Your task to perform on an android device: open app "Yahoo Mail" (install if not already installed) Image 0: 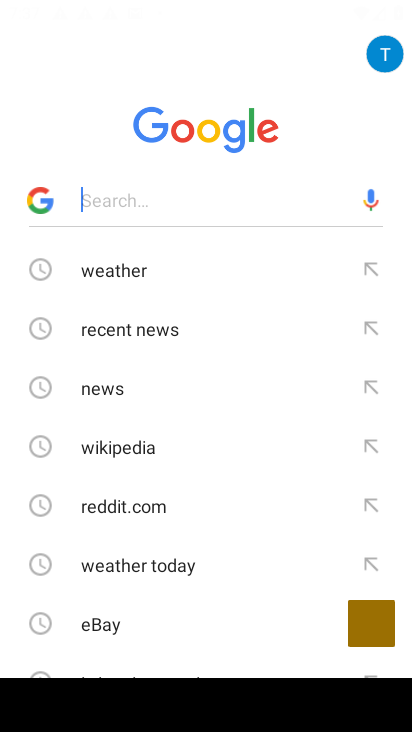
Step 0: drag from (170, 433) to (193, 196)
Your task to perform on an android device: open app "Yahoo Mail" (install if not already installed) Image 1: 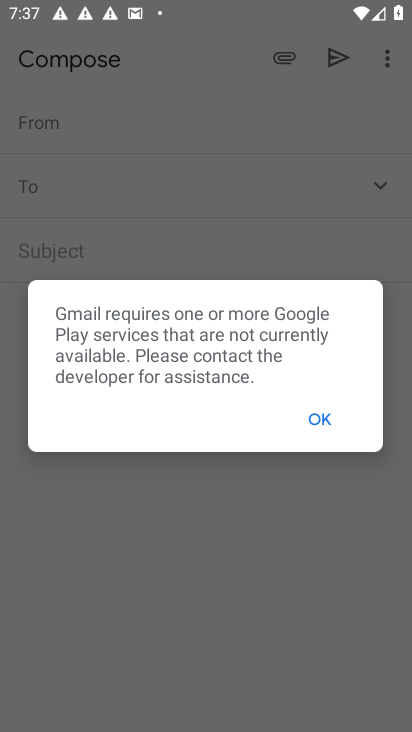
Step 1: press home button
Your task to perform on an android device: open app "Yahoo Mail" (install if not already installed) Image 2: 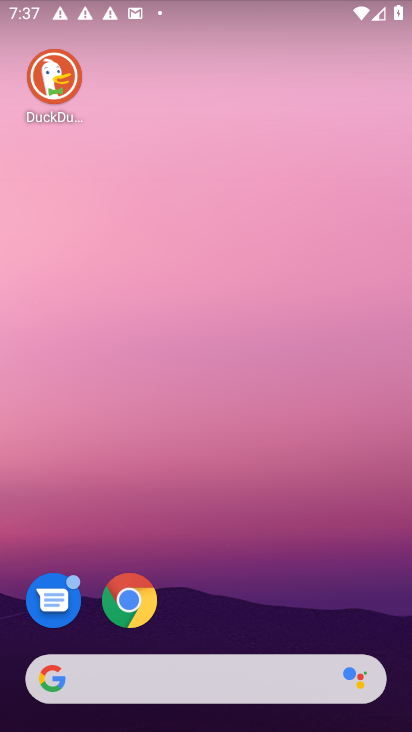
Step 2: drag from (177, 514) to (216, 17)
Your task to perform on an android device: open app "Yahoo Mail" (install if not already installed) Image 3: 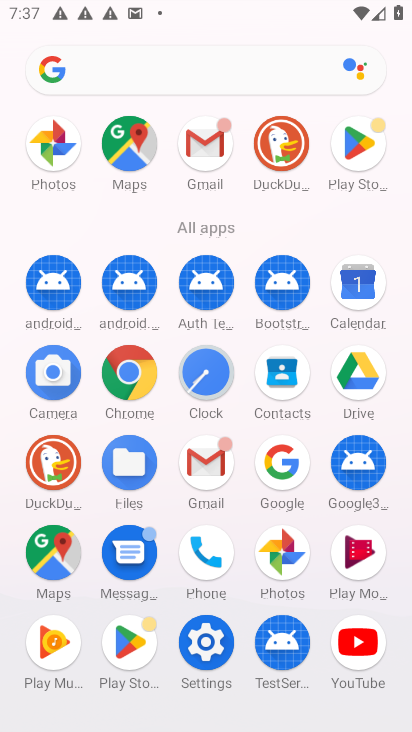
Step 3: click (362, 161)
Your task to perform on an android device: open app "Yahoo Mail" (install if not already installed) Image 4: 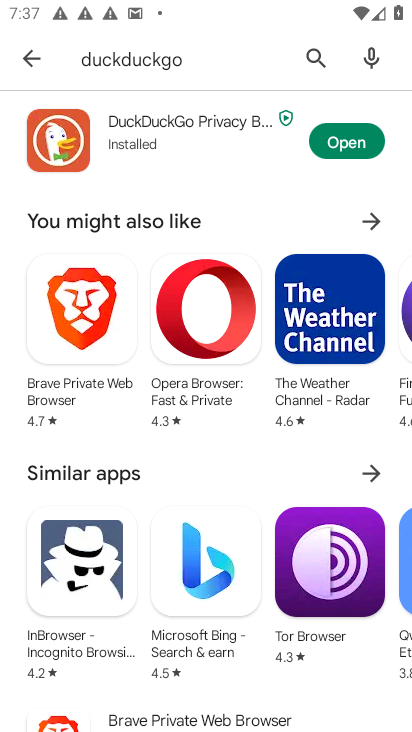
Step 4: click (176, 60)
Your task to perform on an android device: open app "Yahoo Mail" (install if not already installed) Image 5: 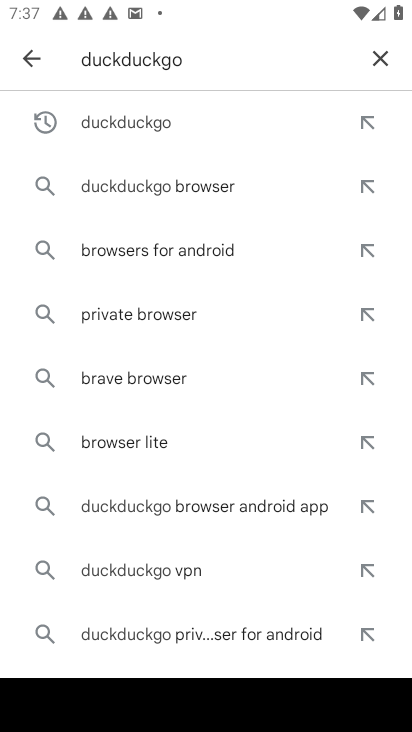
Step 5: click (378, 56)
Your task to perform on an android device: open app "Yahoo Mail" (install if not already installed) Image 6: 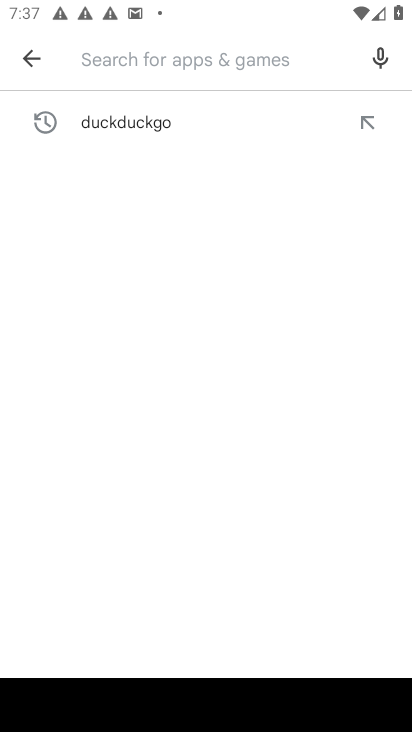
Step 6: type "yahoo mail"
Your task to perform on an android device: open app "Yahoo Mail" (install if not already installed) Image 7: 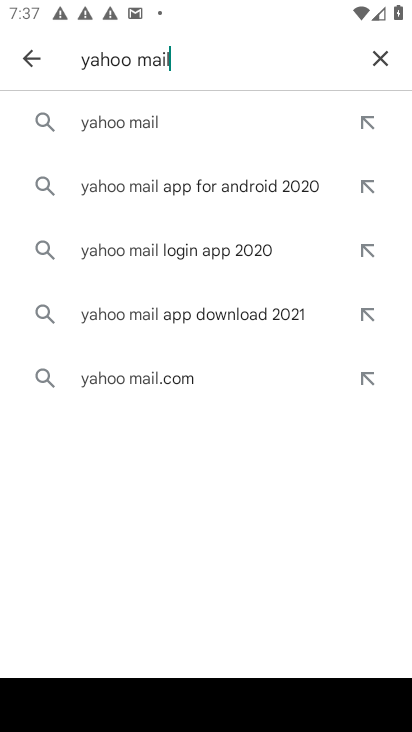
Step 7: click (128, 114)
Your task to perform on an android device: open app "Yahoo Mail" (install if not already installed) Image 8: 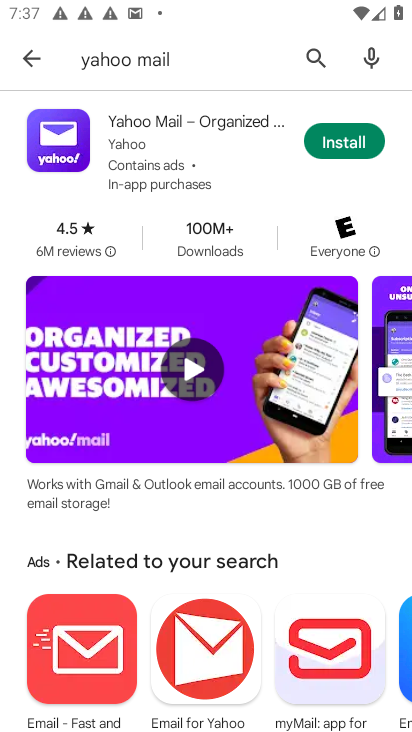
Step 8: click (355, 136)
Your task to perform on an android device: open app "Yahoo Mail" (install if not already installed) Image 9: 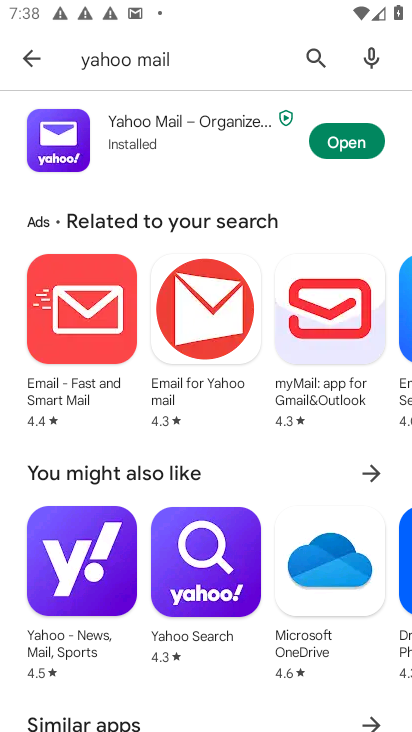
Step 9: click (351, 141)
Your task to perform on an android device: open app "Yahoo Mail" (install if not already installed) Image 10: 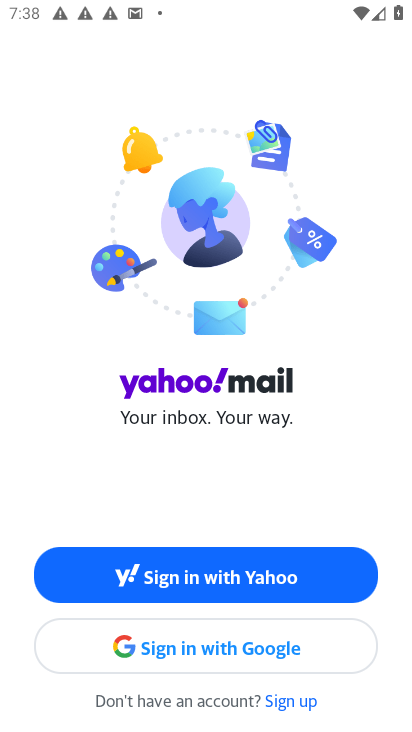
Step 10: click (215, 649)
Your task to perform on an android device: open app "Yahoo Mail" (install if not already installed) Image 11: 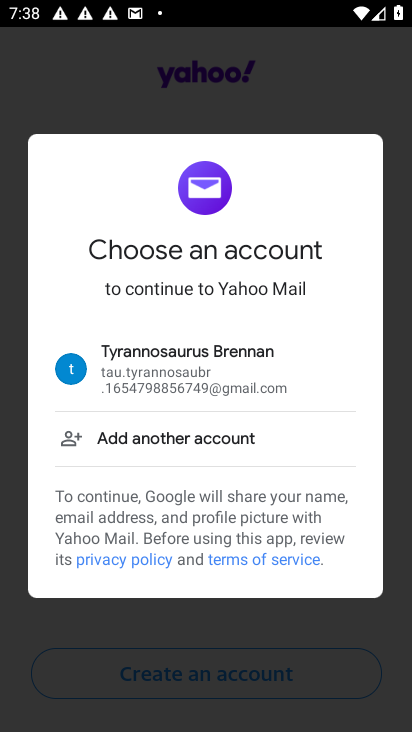
Step 11: click (163, 356)
Your task to perform on an android device: open app "Yahoo Mail" (install if not already installed) Image 12: 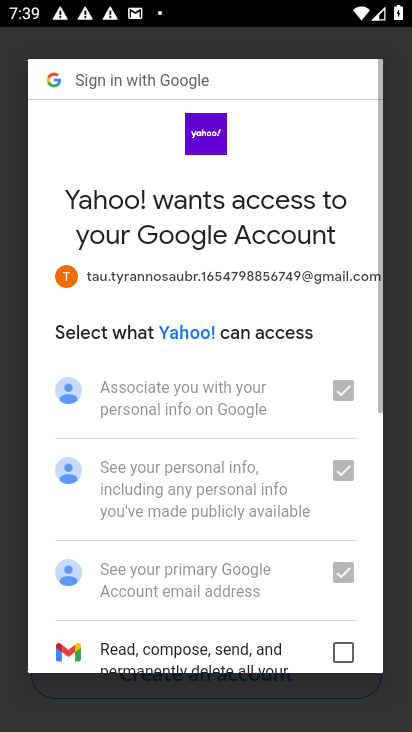
Step 12: task complete